Your task to perform on an android device: turn on sleep mode Image 0: 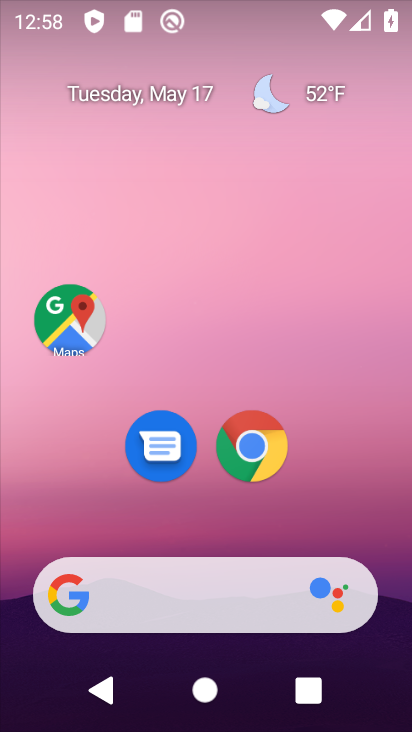
Step 0: drag from (319, 21) to (264, 591)
Your task to perform on an android device: turn on sleep mode Image 1: 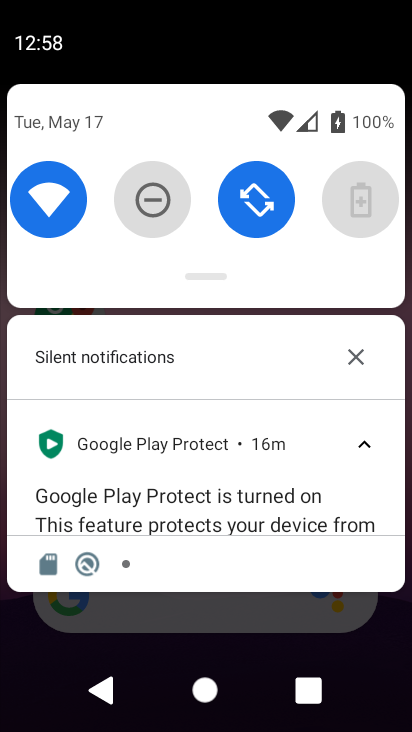
Step 1: drag from (230, 266) to (237, 665)
Your task to perform on an android device: turn on sleep mode Image 2: 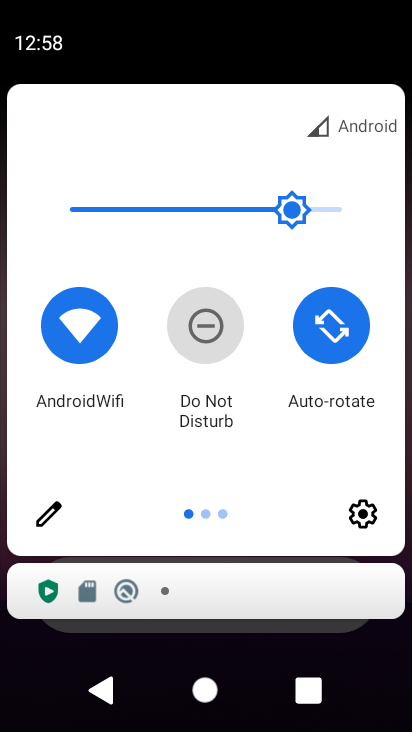
Step 2: click (48, 511)
Your task to perform on an android device: turn on sleep mode Image 3: 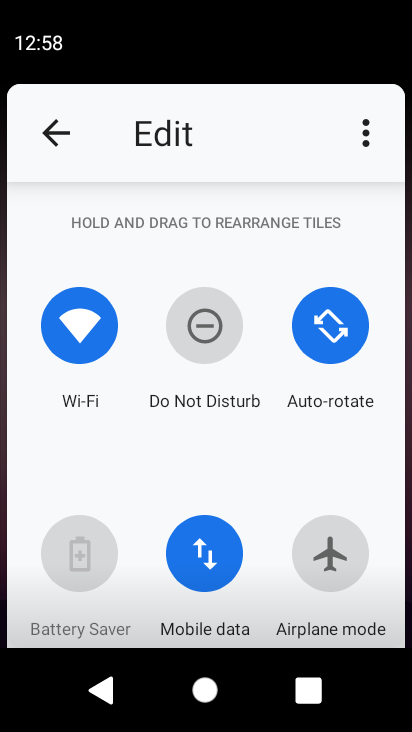
Step 3: task complete